Your task to perform on an android device: add a contact in the contacts app Image 0: 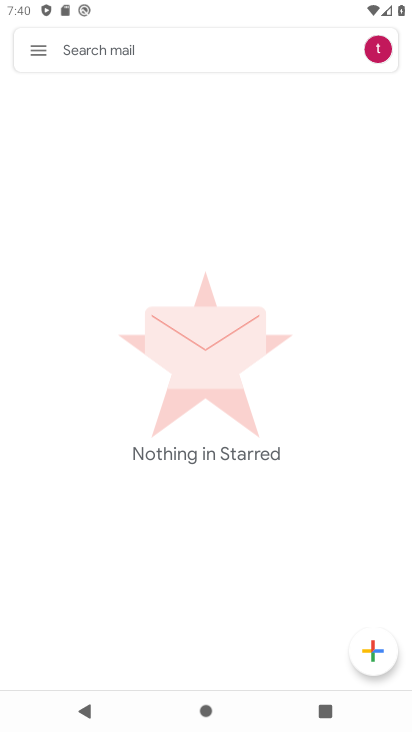
Step 0: press home button
Your task to perform on an android device: add a contact in the contacts app Image 1: 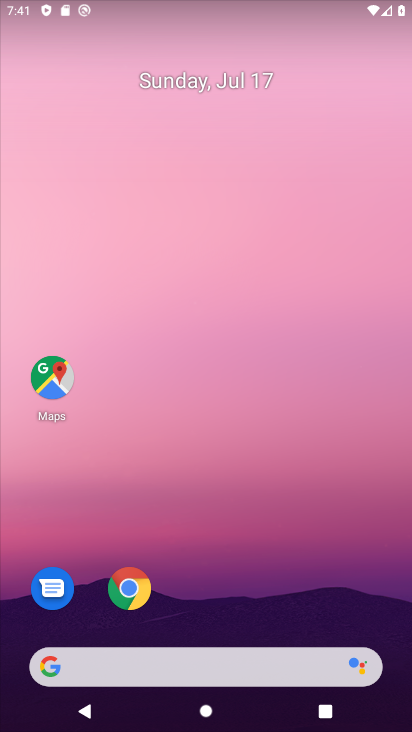
Step 1: drag from (232, 638) to (249, 16)
Your task to perform on an android device: add a contact in the contacts app Image 2: 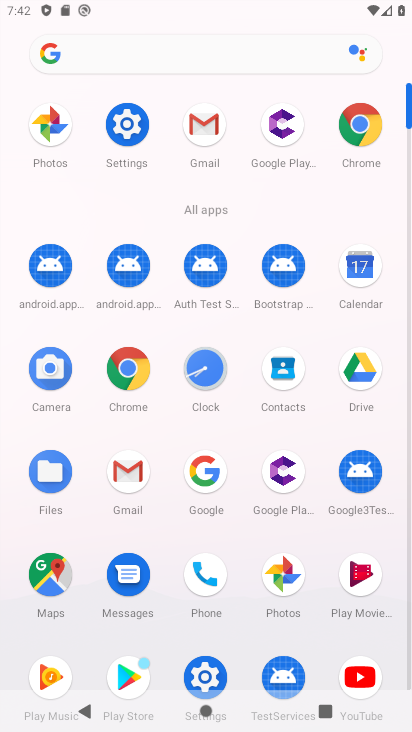
Step 2: click (348, 293)
Your task to perform on an android device: add a contact in the contacts app Image 3: 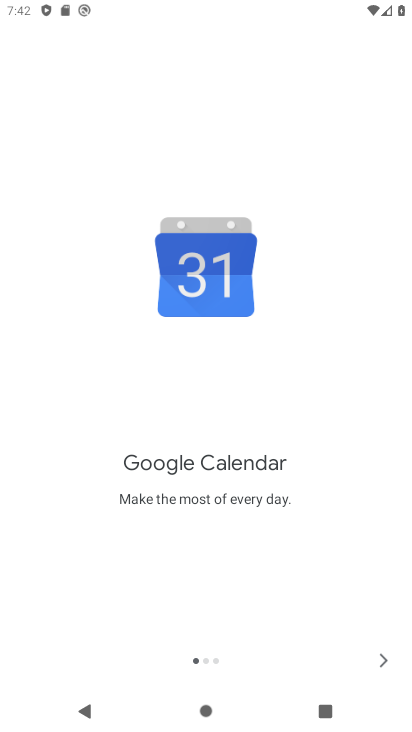
Step 3: click (385, 652)
Your task to perform on an android device: add a contact in the contacts app Image 4: 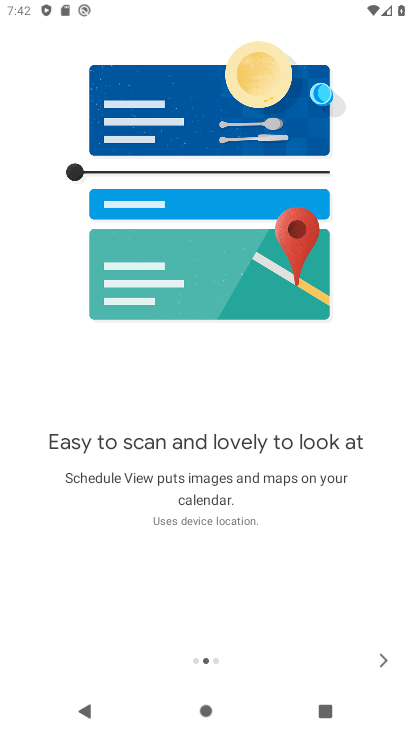
Step 4: click (385, 652)
Your task to perform on an android device: add a contact in the contacts app Image 5: 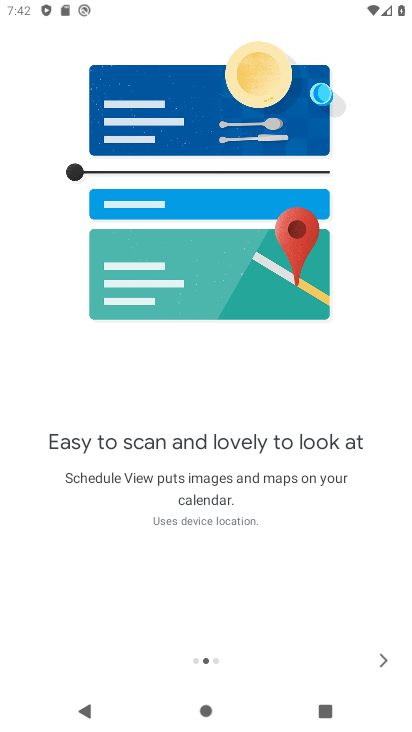
Step 5: click (385, 652)
Your task to perform on an android device: add a contact in the contacts app Image 6: 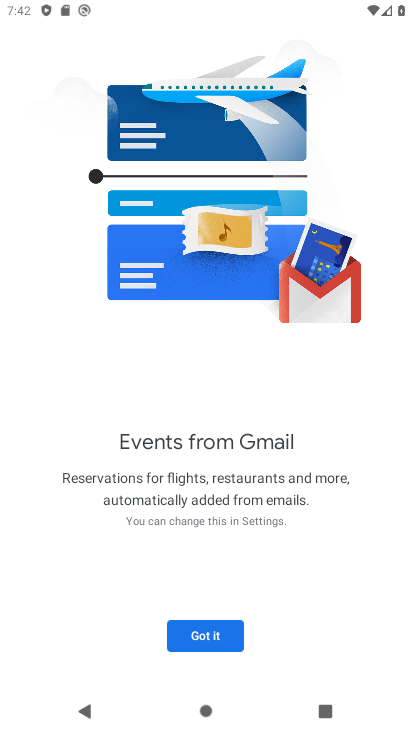
Step 6: click (179, 639)
Your task to perform on an android device: add a contact in the contacts app Image 7: 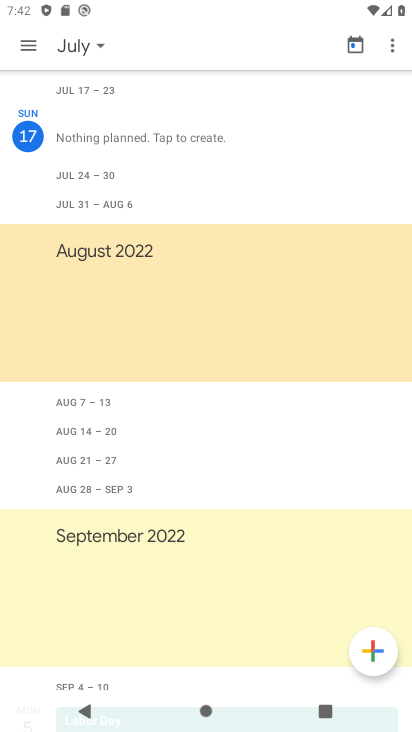
Step 7: task complete